Your task to perform on an android device: toggle sleep mode Image 0: 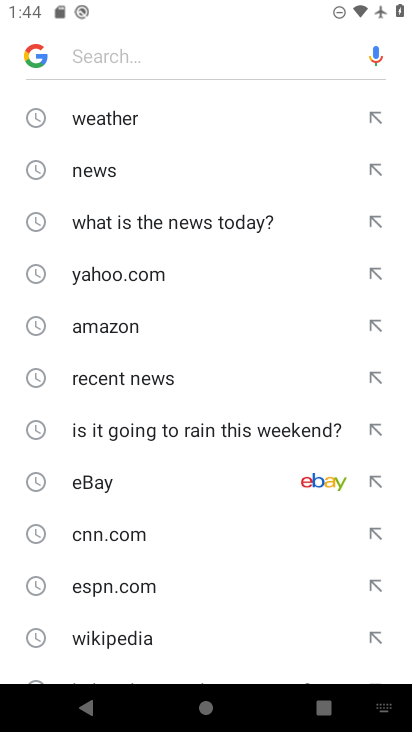
Step 0: press home button
Your task to perform on an android device: toggle sleep mode Image 1: 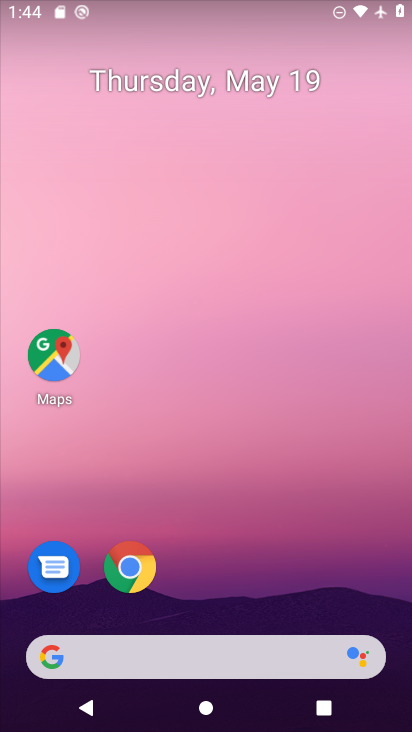
Step 1: drag from (246, 556) to (268, 51)
Your task to perform on an android device: toggle sleep mode Image 2: 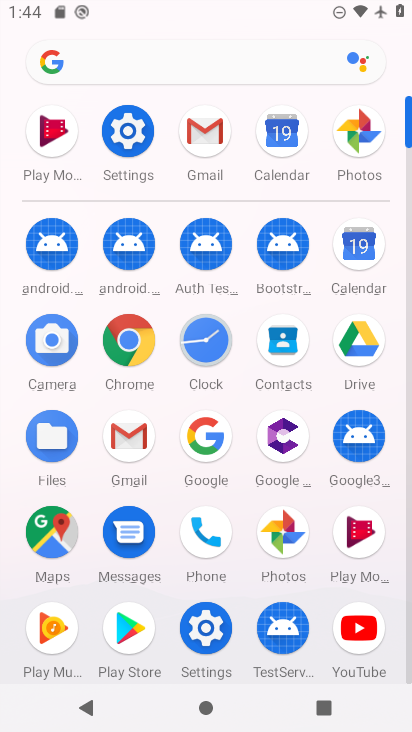
Step 2: click (133, 131)
Your task to perform on an android device: toggle sleep mode Image 3: 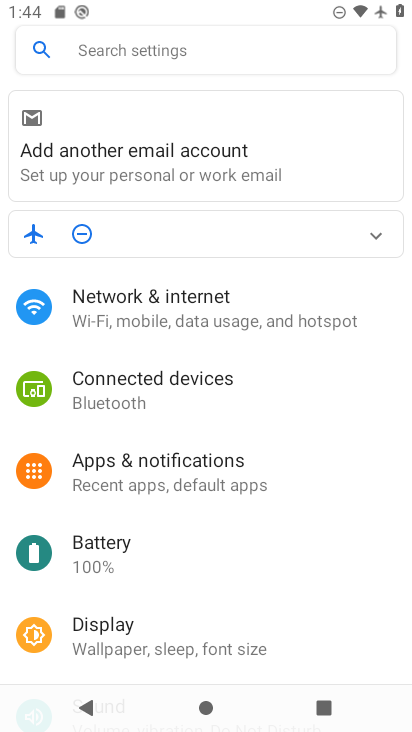
Step 3: click (198, 633)
Your task to perform on an android device: toggle sleep mode Image 4: 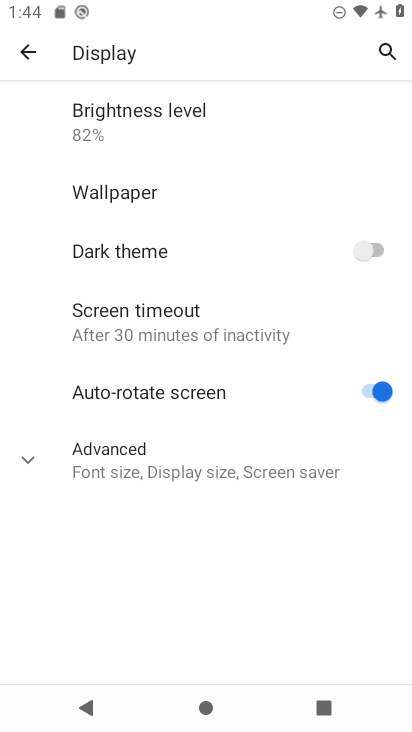
Step 4: click (23, 453)
Your task to perform on an android device: toggle sleep mode Image 5: 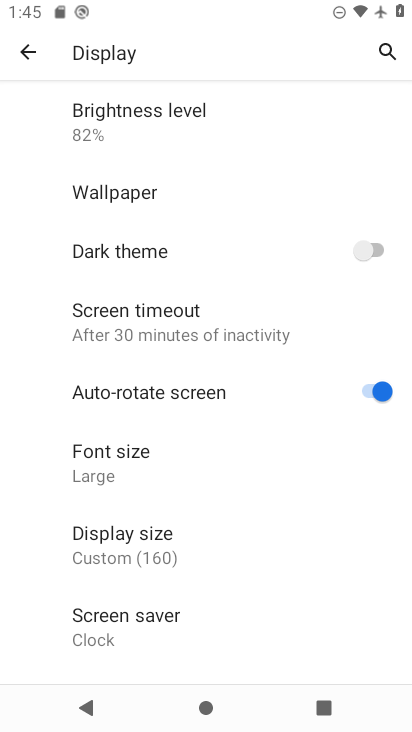
Step 5: task complete